Your task to perform on an android device: Open Google Maps Image 0: 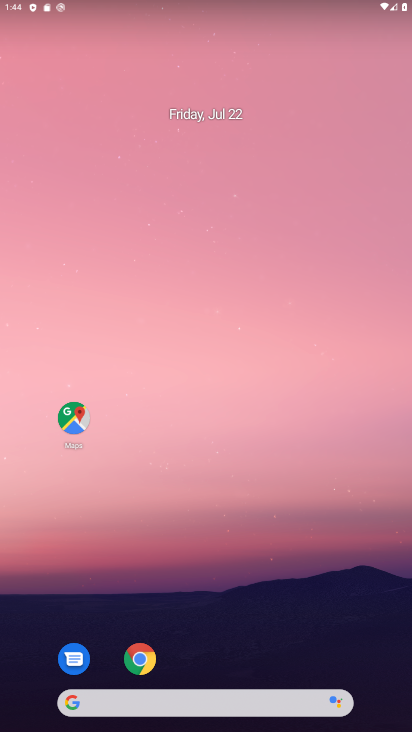
Step 0: drag from (267, 703) to (137, 102)
Your task to perform on an android device: Open Google Maps Image 1: 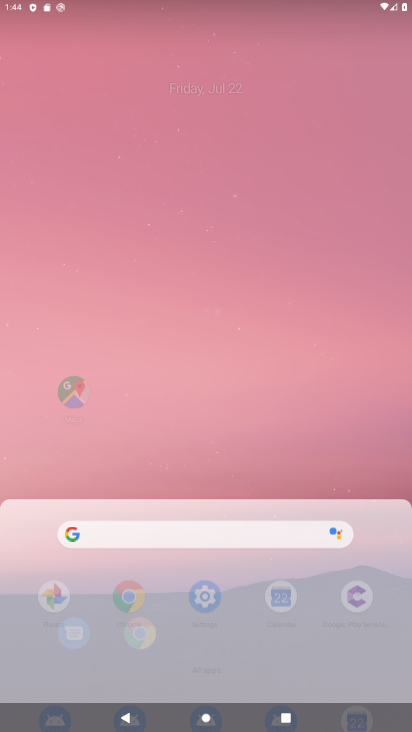
Step 1: drag from (268, 520) to (226, 249)
Your task to perform on an android device: Open Google Maps Image 2: 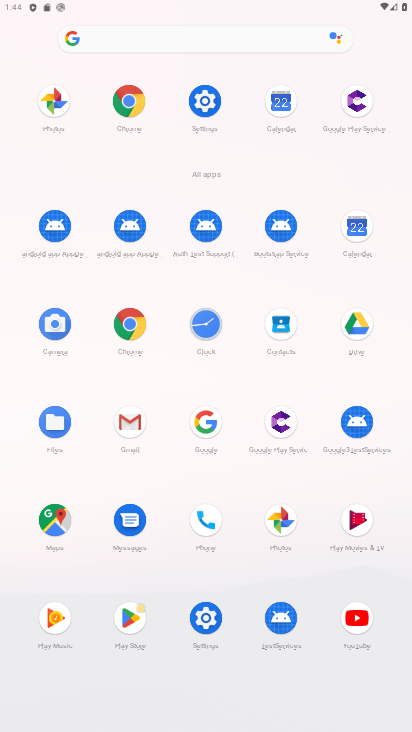
Step 2: click (56, 513)
Your task to perform on an android device: Open Google Maps Image 3: 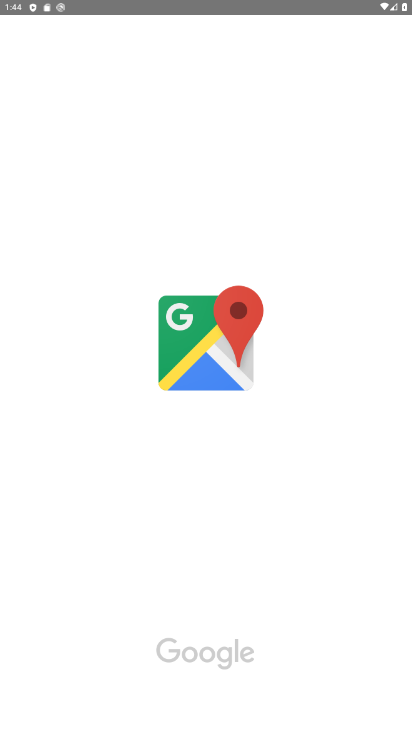
Step 3: click (52, 508)
Your task to perform on an android device: Open Google Maps Image 4: 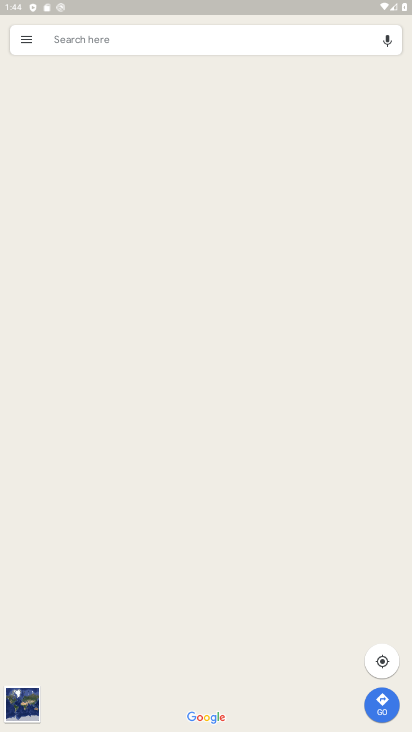
Step 4: click (48, 511)
Your task to perform on an android device: Open Google Maps Image 5: 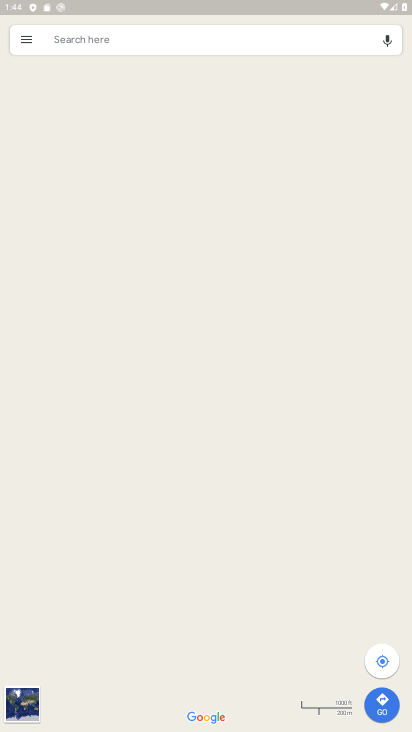
Step 5: click (48, 513)
Your task to perform on an android device: Open Google Maps Image 6: 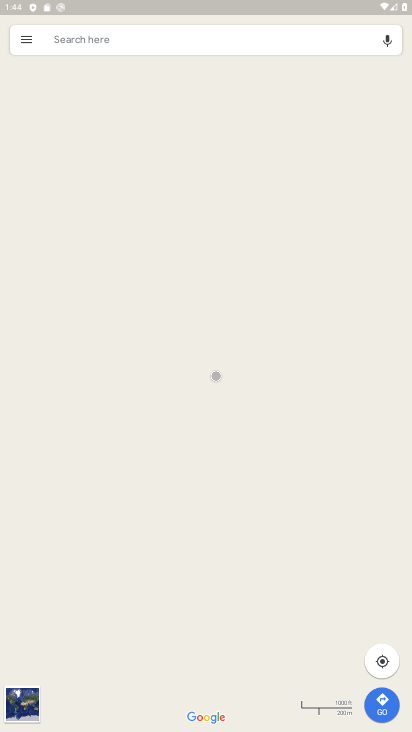
Step 6: click (32, 45)
Your task to perform on an android device: Open Google Maps Image 7: 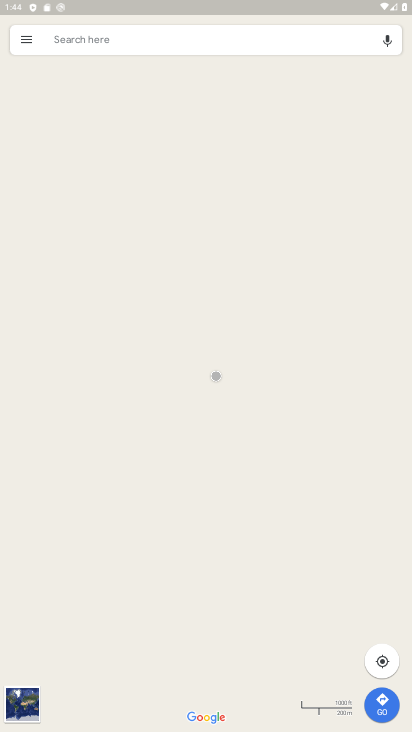
Step 7: click (32, 45)
Your task to perform on an android device: Open Google Maps Image 8: 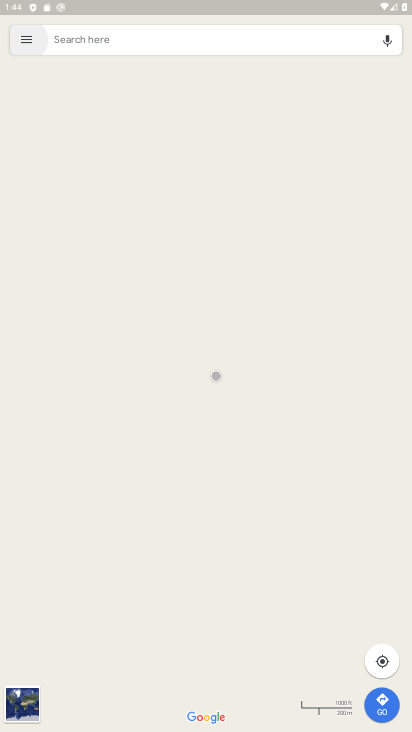
Step 8: click (32, 45)
Your task to perform on an android device: Open Google Maps Image 9: 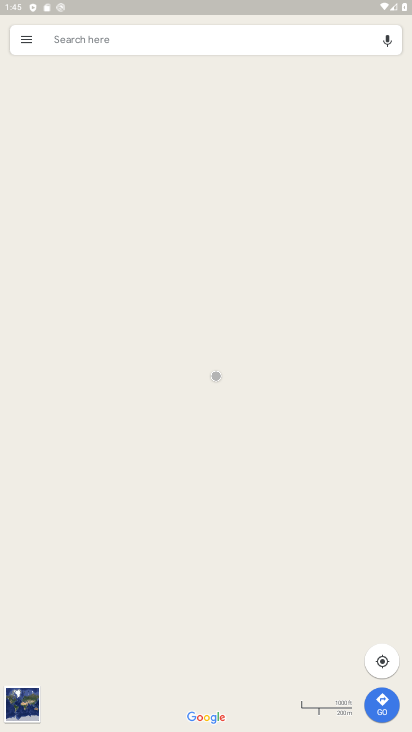
Step 9: click (32, 44)
Your task to perform on an android device: Open Google Maps Image 10: 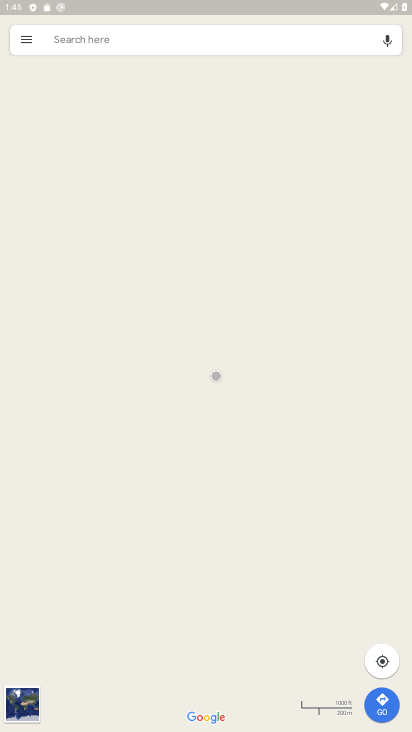
Step 10: click (32, 44)
Your task to perform on an android device: Open Google Maps Image 11: 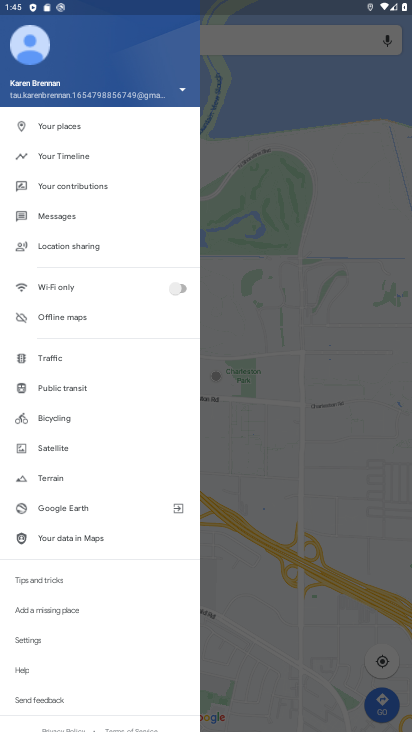
Step 11: click (314, 318)
Your task to perform on an android device: Open Google Maps Image 12: 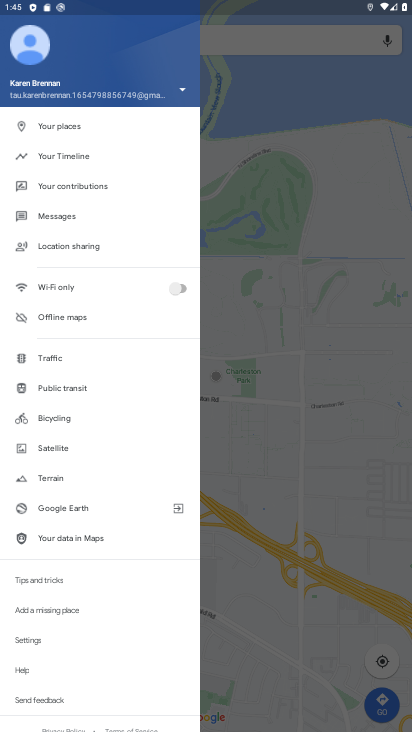
Step 12: drag from (311, 309) to (315, 348)
Your task to perform on an android device: Open Google Maps Image 13: 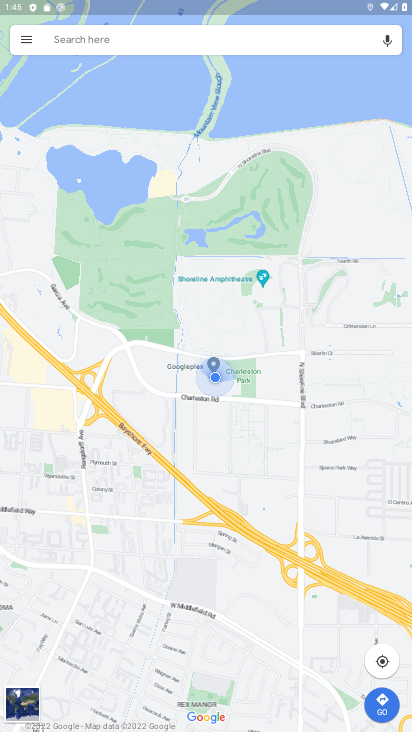
Step 13: drag from (304, 337) to (72, 25)
Your task to perform on an android device: Open Google Maps Image 14: 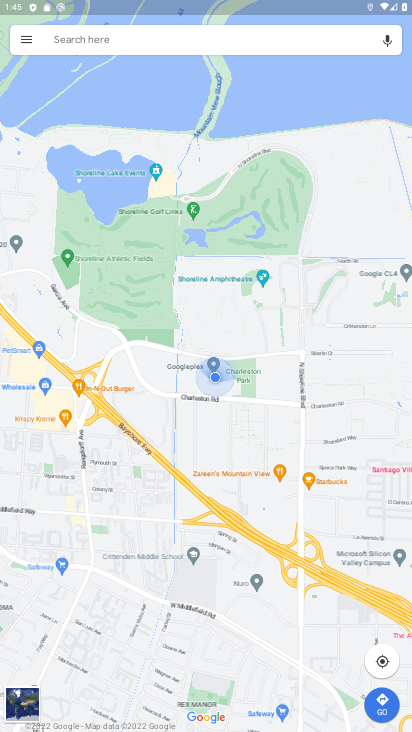
Step 14: click (74, 36)
Your task to perform on an android device: Open Google Maps Image 15: 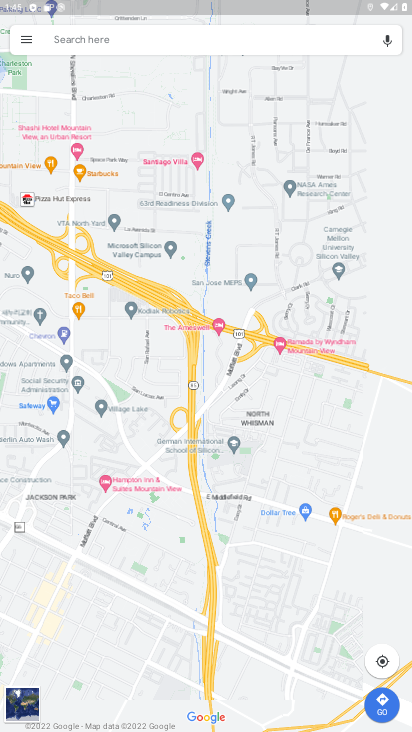
Step 15: click (82, 37)
Your task to perform on an android device: Open Google Maps Image 16: 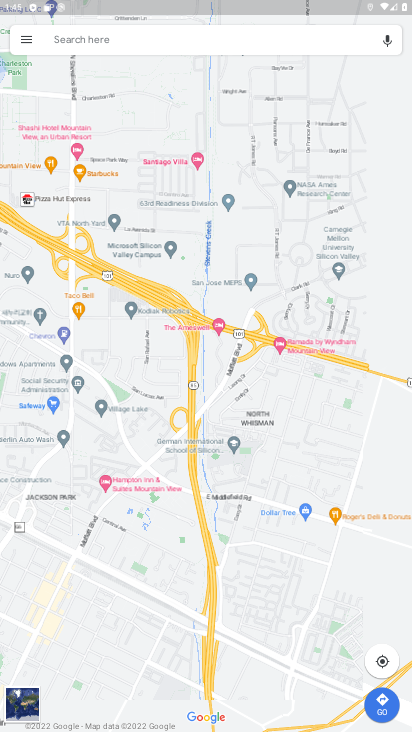
Step 16: click (86, 35)
Your task to perform on an android device: Open Google Maps Image 17: 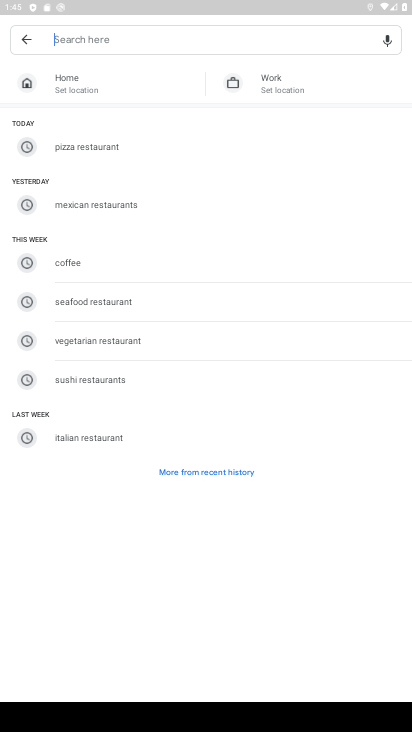
Step 17: click (62, 31)
Your task to perform on an android device: Open Google Maps Image 18: 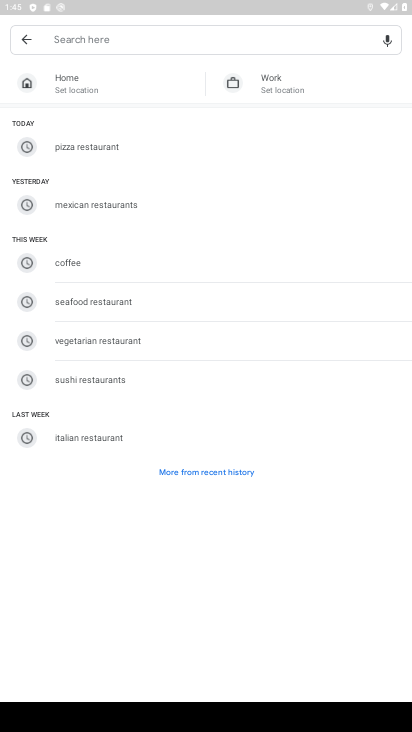
Step 18: click (62, 33)
Your task to perform on an android device: Open Google Maps Image 19: 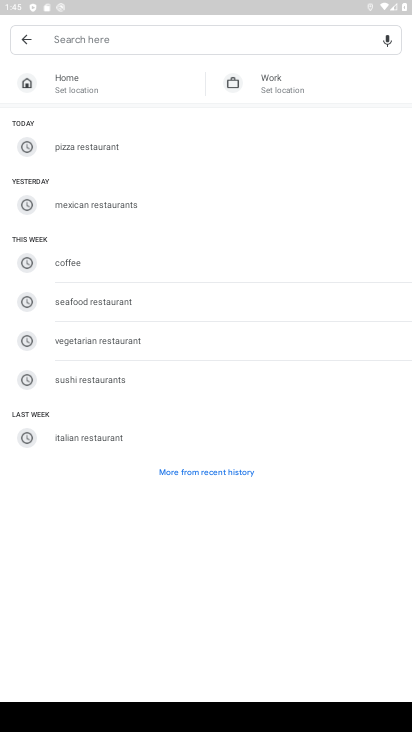
Step 19: click (62, 34)
Your task to perform on an android device: Open Google Maps Image 20: 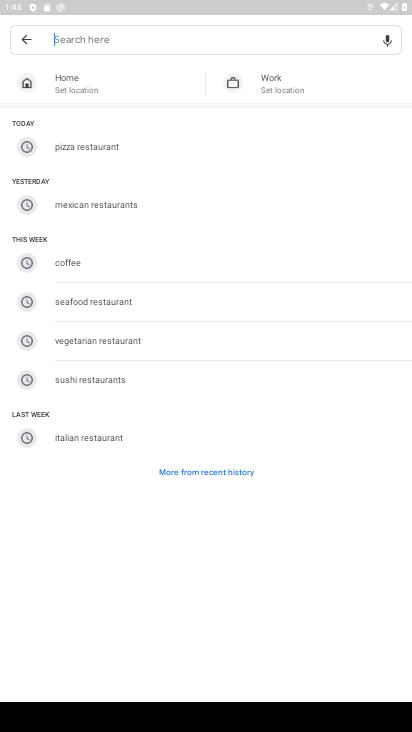
Step 20: click (63, 37)
Your task to perform on an android device: Open Google Maps Image 21: 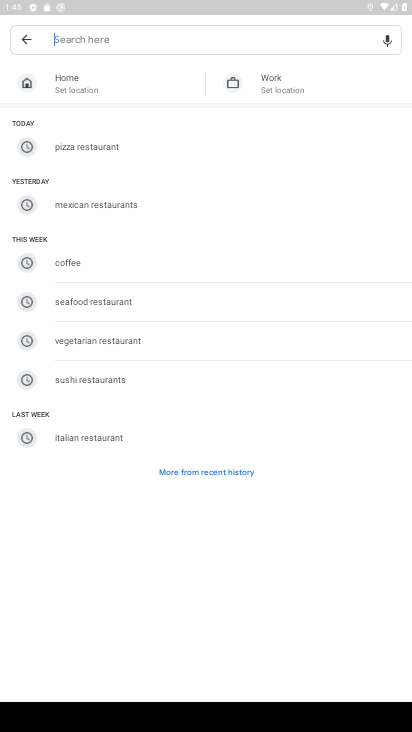
Step 21: click (63, 38)
Your task to perform on an android device: Open Google Maps Image 22: 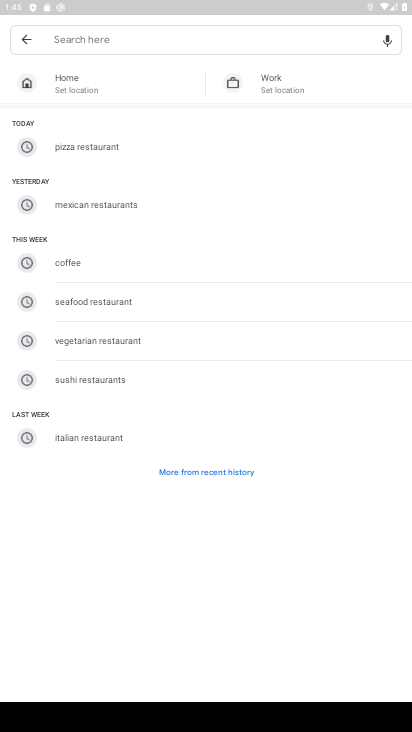
Step 22: task complete